Your task to perform on an android device: delete a single message in the gmail app Image 0: 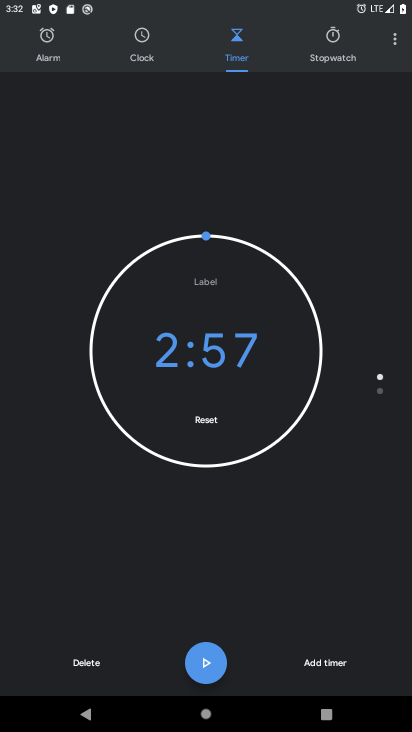
Step 0: press home button
Your task to perform on an android device: delete a single message in the gmail app Image 1: 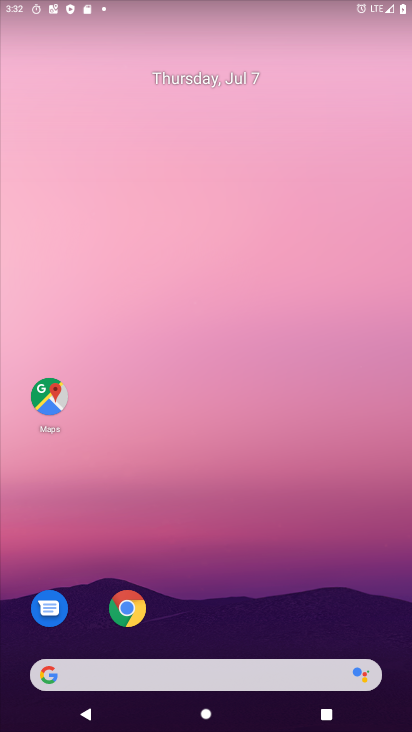
Step 1: drag from (238, 726) to (202, 144)
Your task to perform on an android device: delete a single message in the gmail app Image 2: 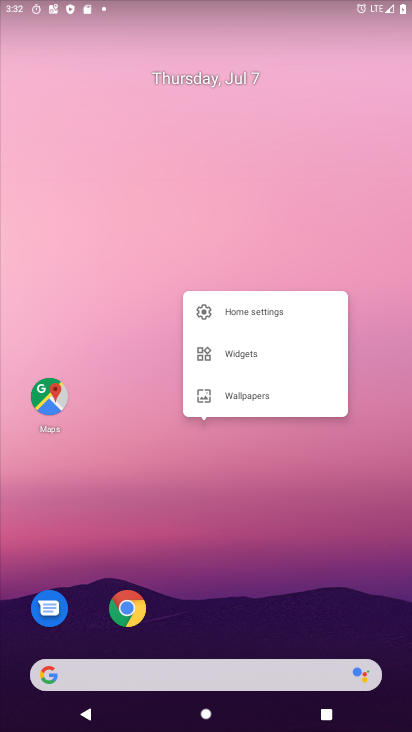
Step 2: click (186, 245)
Your task to perform on an android device: delete a single message in the gmail app Image 3: 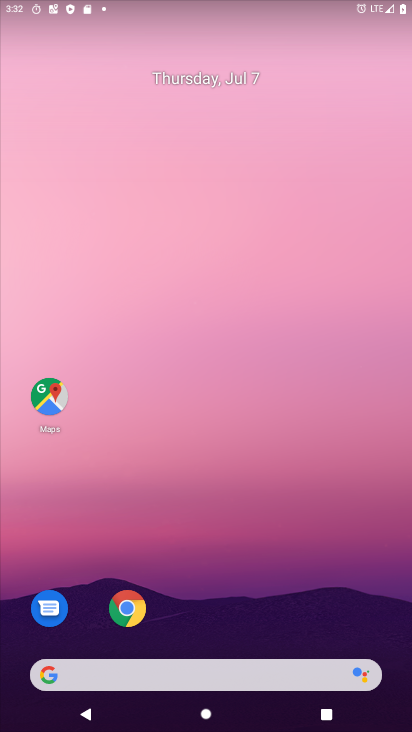
Step 3: drag from (250, 688) to (236, 582)
Your task to perform on an android device: delete a single message in the gmail app Image 4: 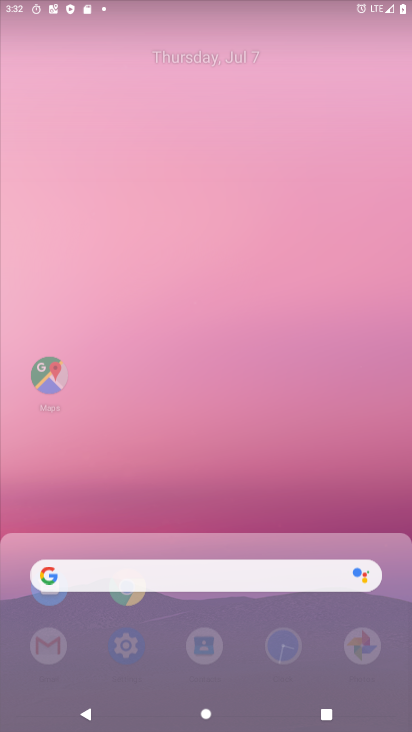
Step 4: drag from (222, 98) to (222, 46)
Your task to perform on an android device: delete a single message in the gmail app Image 5: 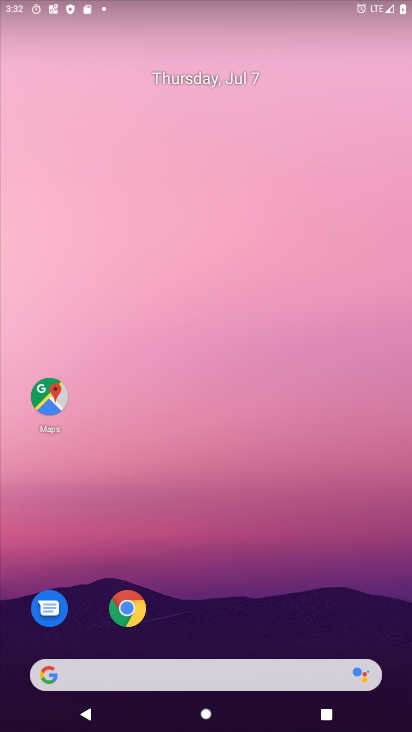
Step 5: drag from (251, 692) to (238, 150)
Your task to perform on an android device: delete a single message in the gmail app Image 6: 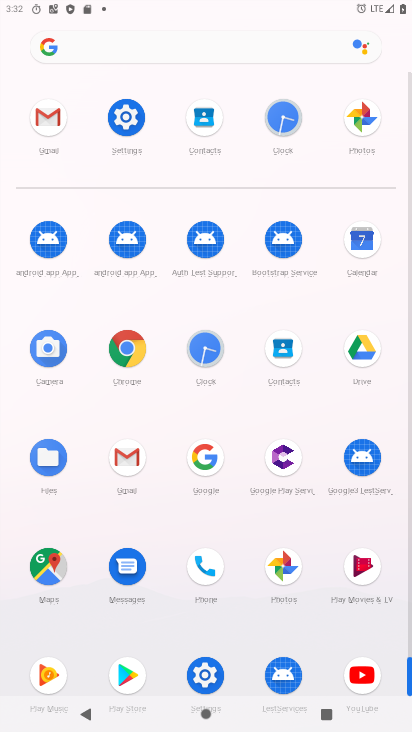
Step 6: click (126, 457)
Your task to perform on an android device: delete a single message in the gmail app Image 7: 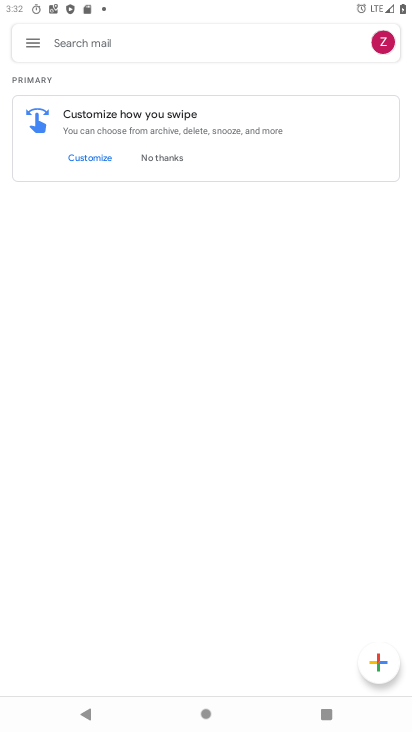
Step 7: task complete